Your task to perform on an android device: Go to battery settings Image 0: 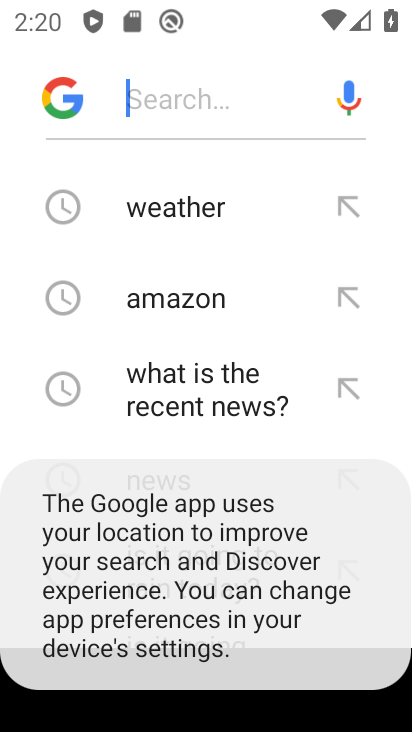
Step 0: press home button
Your task to perform on an android device: Go to battery settings Image 1: 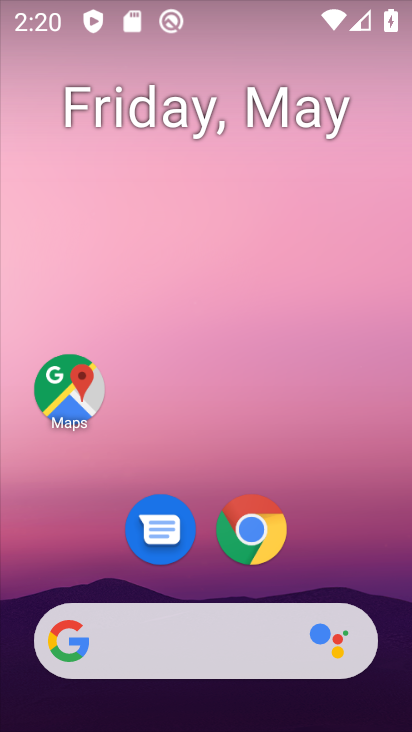
Step 1: drag from (331, 499) to (338, 2)
Your task to perform on an android device: Go to battery settings Image 2: 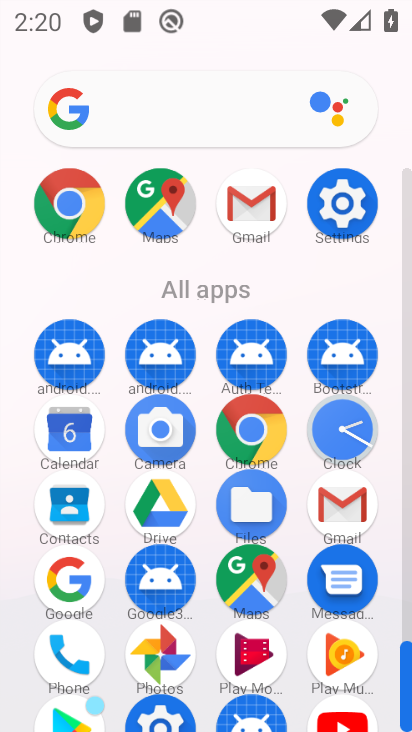
Step 2: click (356, 259)
Your task to perform on an android device: Go to battery settings Image 3: 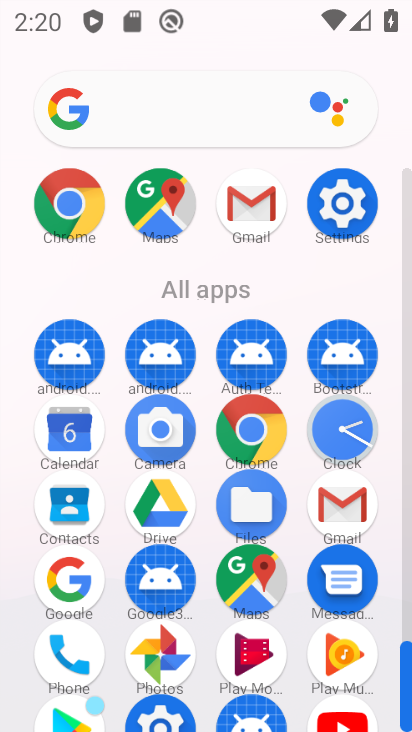
Step 3: click (351, 212)
Your task to perform on an android device: Go to battery settings Image 4: 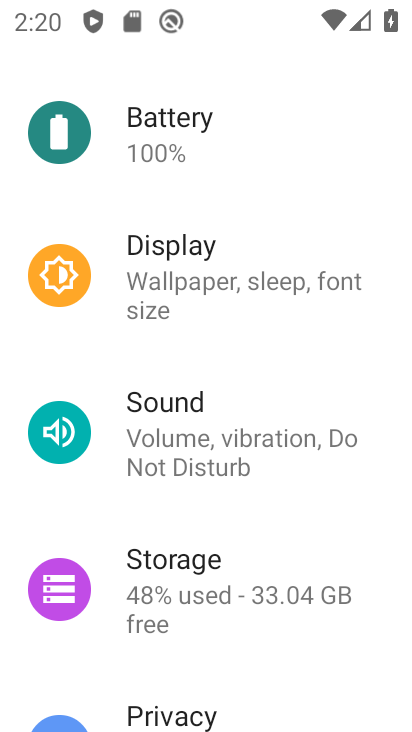
Step 4: click (151, 154)
Your task to perform on an android device: Go to battery settings Image 5: 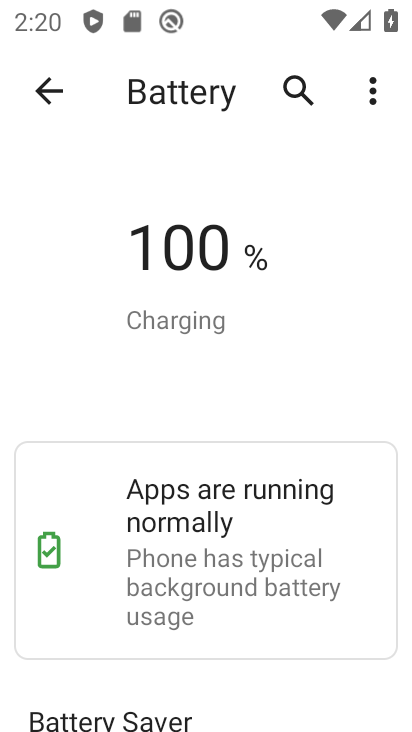
Step 5: task complete